Your task to perform on an android device: manage bookmarks in the chrome app Image 0: 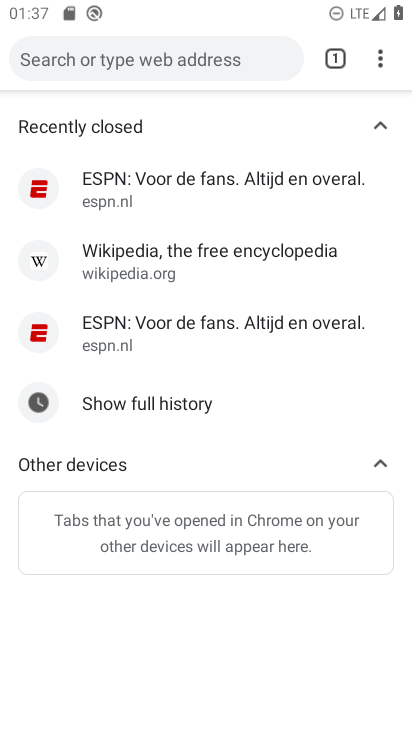
Step 0: click (378, 52)
Your task to perform on an android device: manage bookmarks in the chrome app Image 1: 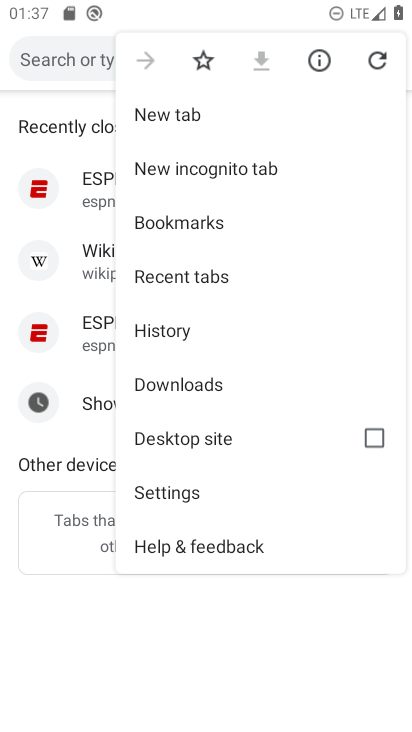
Step 1: click (237, 221)
Your task to perform on an android device: manage bookmarks in the chrome app Image 2: 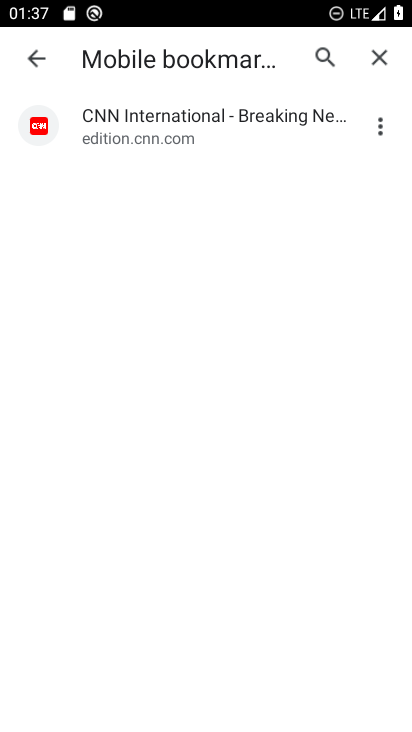
Step 2: click (211, 128)
Your task to perform on an android device: manage bookmarks in the chrome app Image 3: 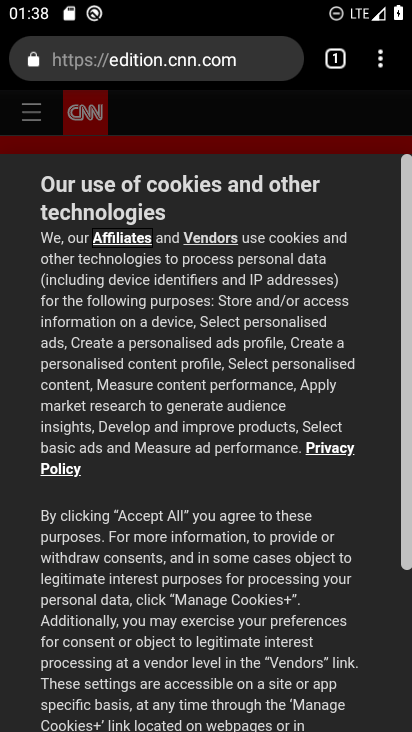
Step 3: drag from (192, 658) to (227, 149)
Your task to perform on an android device: manage bookmarks in the chrome app Image 4: 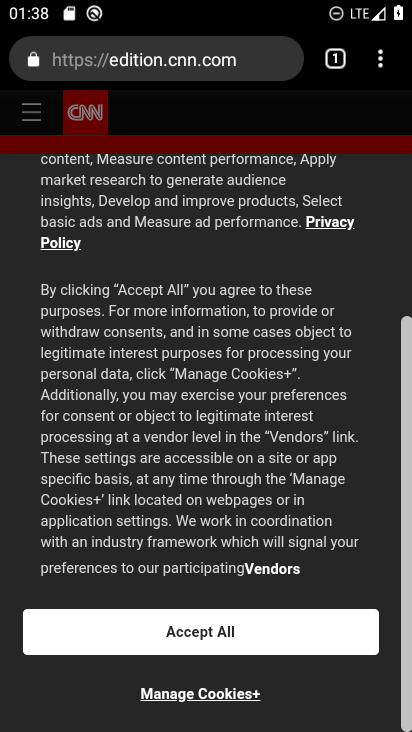
Step 4: click (216, 636)
Your task to perform on an android device: manage bookmarks in the chrome app Image 5: 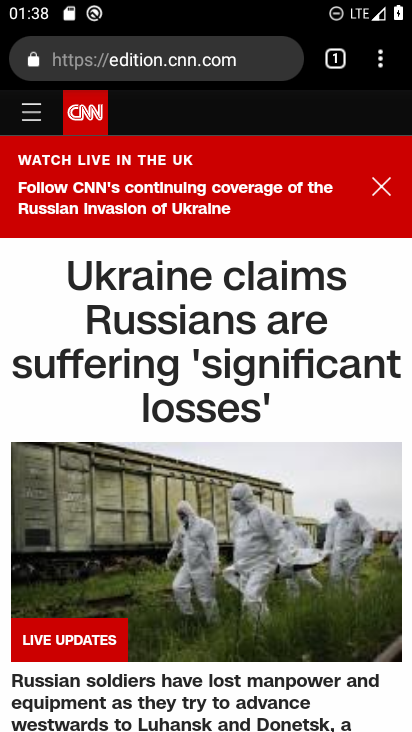
Step 5: task complete